Your task to perform on an android device: Play the last video I watched on Youtube Image 0: 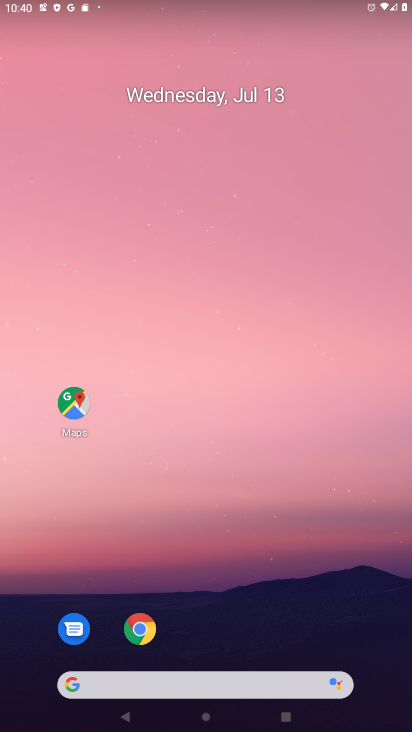
Step 0: drag from (283, 607) to (282, 186)
Your task to perform on an android device: Play the last video I watched on Youtube Image 1: 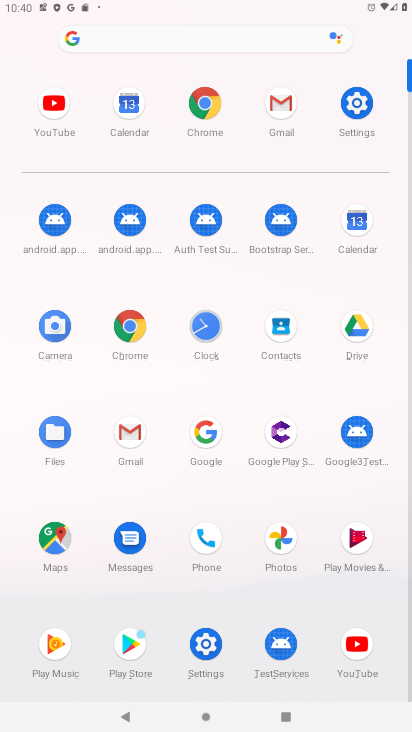
Step 1: click (40, 122)
Your task to perform on an android device: Play the last video I watched on Youtube Image 2: 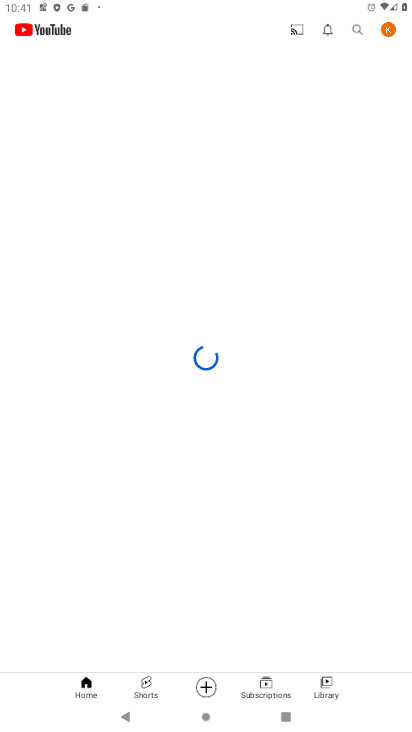
Step 2: click (321, 682)
Your task to perform on an android device: Play the last video I watched on Youtube Image 3: 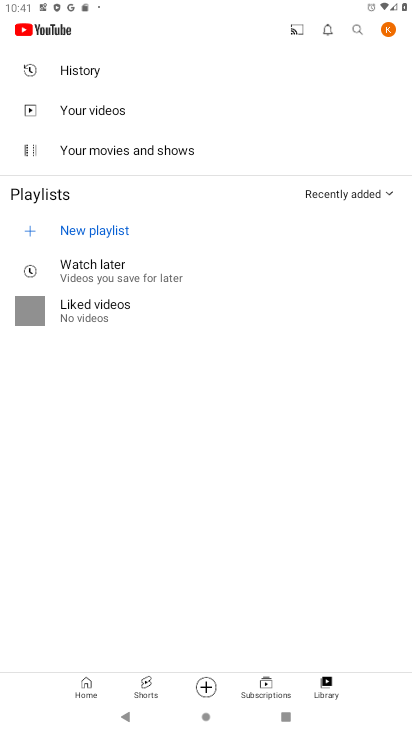
Step 3: click (90, 83)
Your task to perform on an android device: Play the last video I watched on Youtube Image 4: 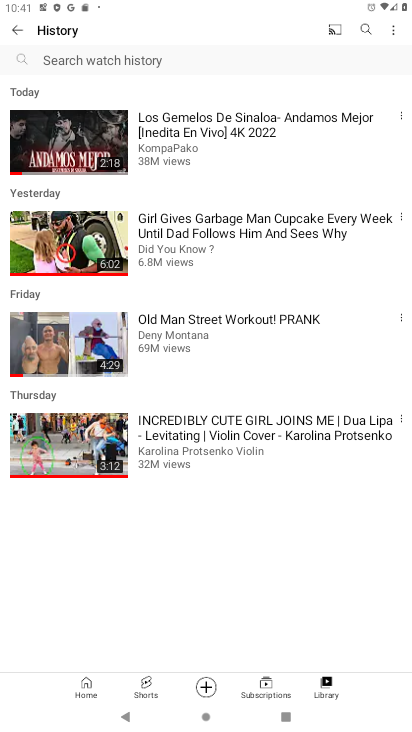
Step 4: click (198, 169)
Your task to perform on an android device: Play the last video I watched on Youtube Image 5: 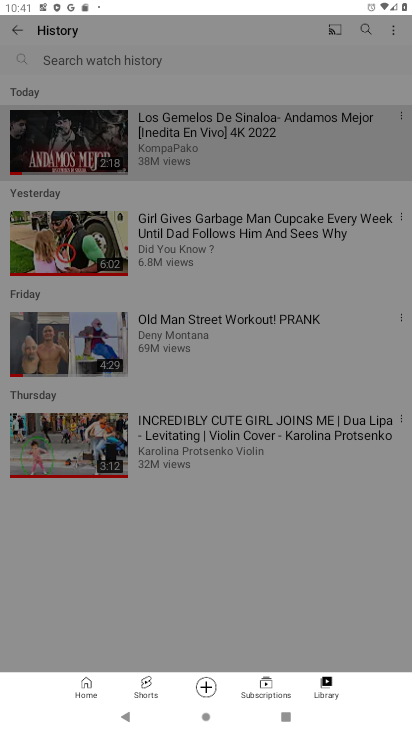
Step 5: task complete